Your task to perform on an android device: Open accessibility settings Image 0: 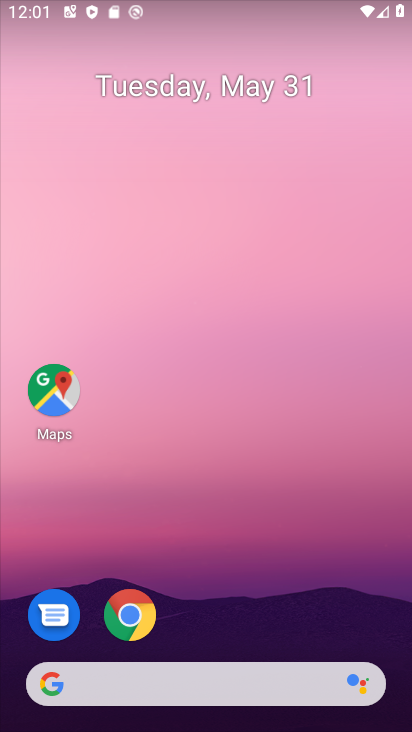
Step 0: drag from (360, 625) to (363, 165)
Your task to perform on an android device: Open accessibility settings Image 1: 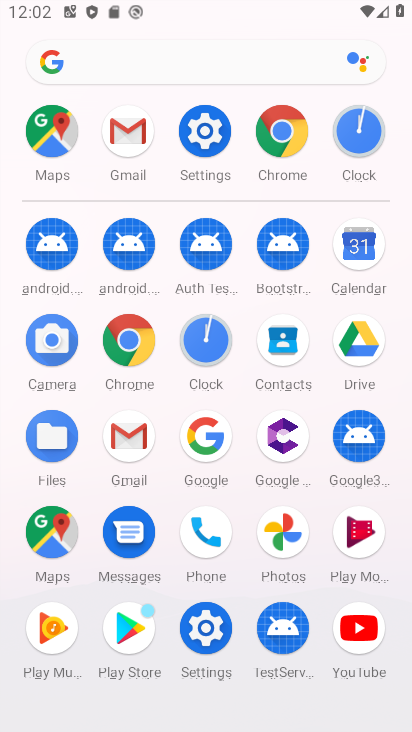
Step 1: click (207, 634)
Your task to perform on an android device: Open accessibility settings Image 2: 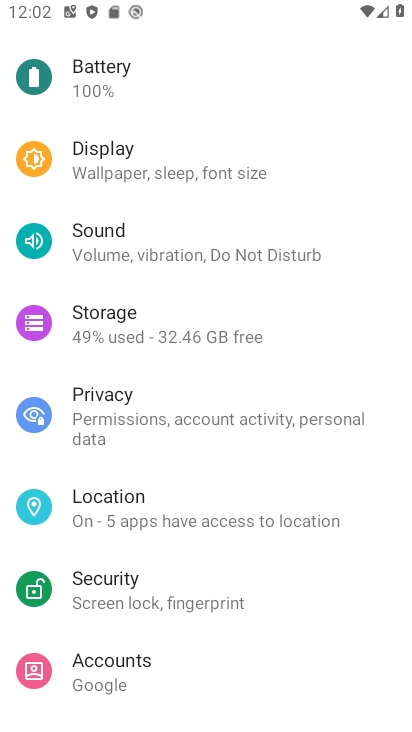
Step 2: drag from (370, 261) to (364, 391)
Your task to perform on an android device: Open accessibility settings Image 3: 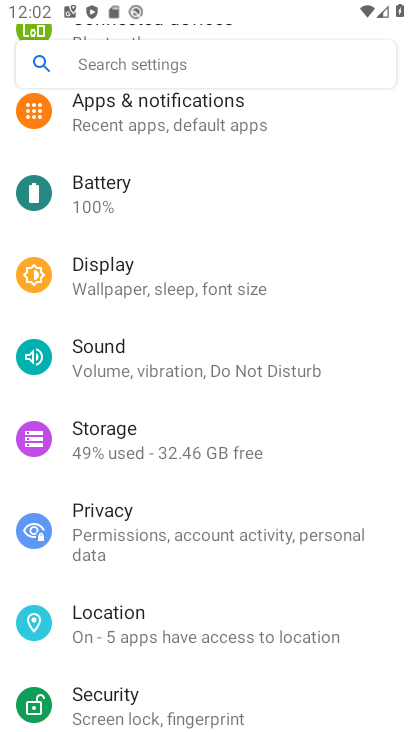
Step 3: drag from (363, 237) to (365, 338)
Your task to perform on an android device: Open accessibility settings Image 4: 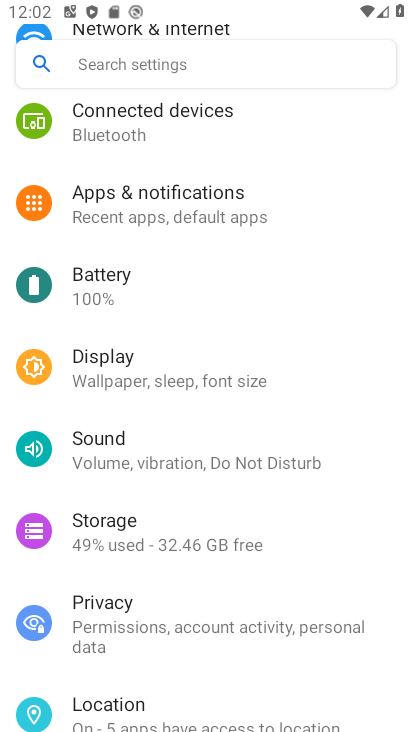
Step 4: drag from (350, 178) to (357, 289)
Your task to perform on an android device: Open accessibility settings Image 5: 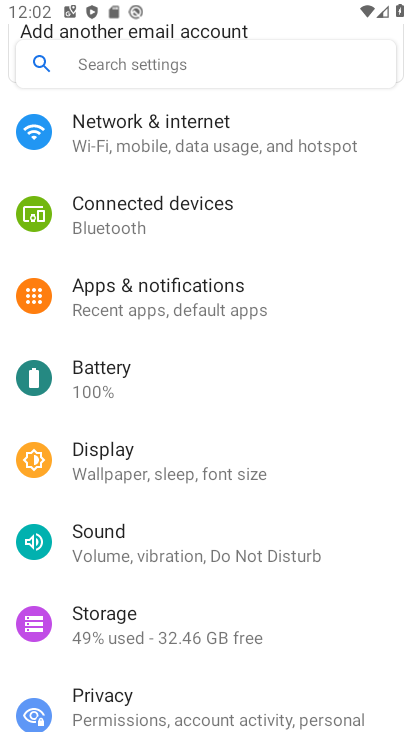
Step 5: drag from (357, 227) to (357, 345)
Your task to perform on an android device: Open accessibility settings Image 6: 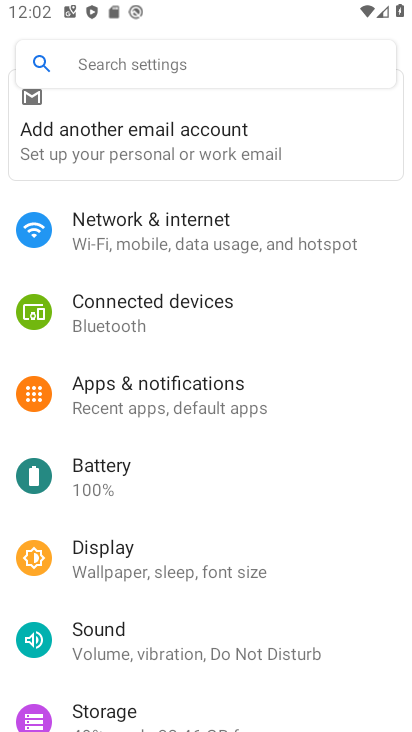
Step 6: drag from (359, 370) to (362, 324)
Your task to perform on an android device: Open accessibility settings Image 7: 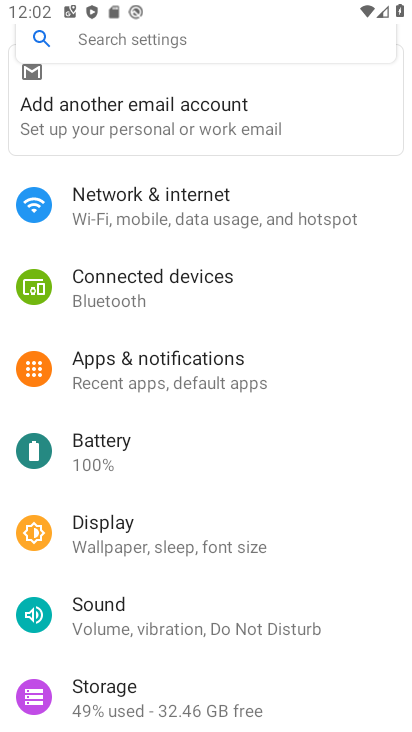
Step 7: drag from (356, 444) to (361, 367)
Your task to perform on an android device: Open accessibility settings Image 8: 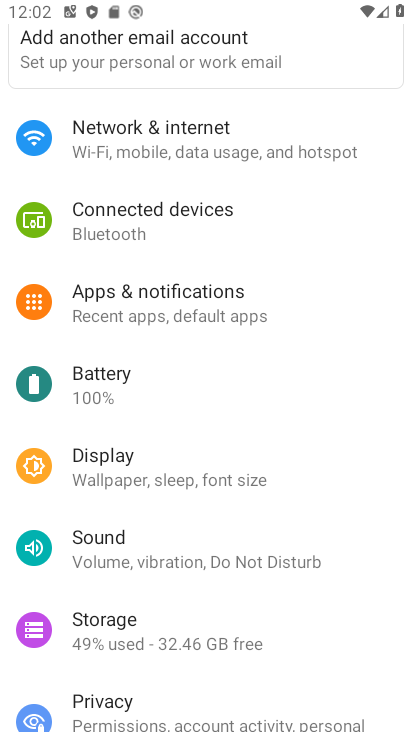
Step 8: drag from (373, 475) to (363, 394)
Your task to perform on an android device: Open accessibility settings Image 9: 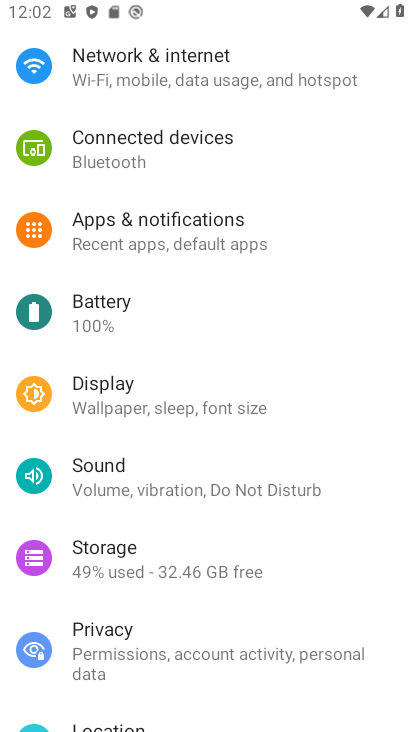
Step 9: drag from (356, 506) to (361, 414)
Your task to perform on an android device: Open accessibility settings Image 10: 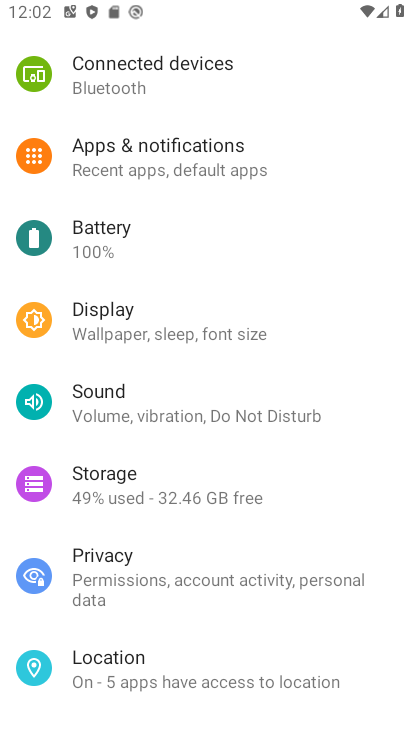
Step 10: drag from (360, 531) to (355, 431)
Your task to perform on an android device: Open accessibility settings Image 11: 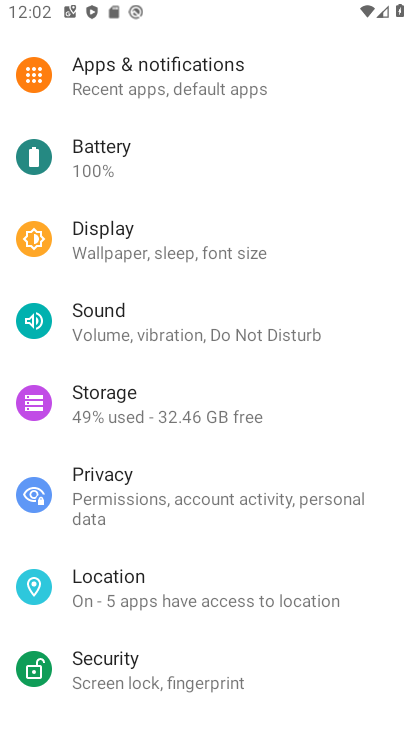
Step 11: drag from (349, 557) to (349, 457)
Your task to perform on an android device: Open accessibility settings Image 12: 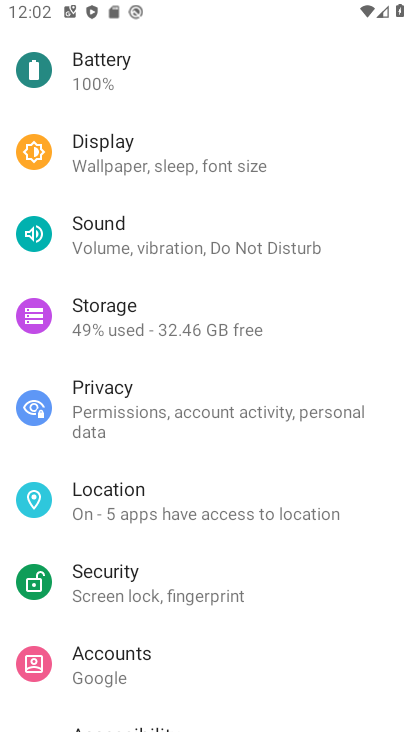
Step 12: drag from (349, 585) to (351, 491)
Your task to perform on an android device: Open accessibility settings Image 13: 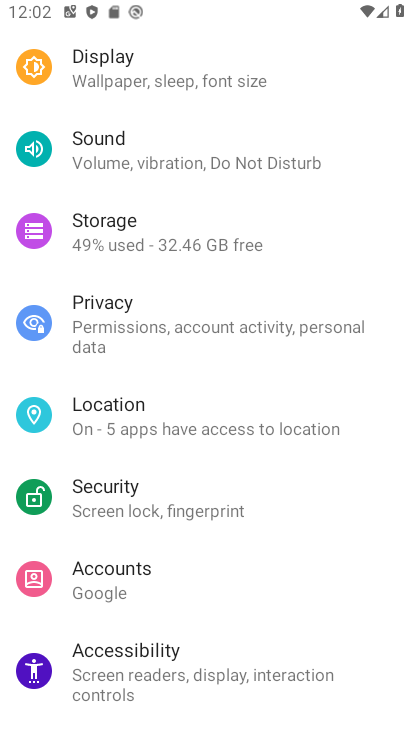
Step 13: drag from (342, 580) to (342, 483)
Your task to perform on an android device: Open accessibility settings Image 14: 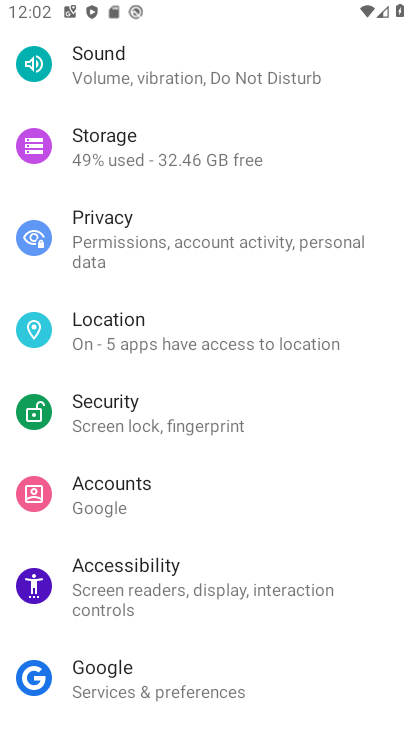
Step 14: click (328, 587)
Your task to perform on an android device: Open accessibility settings Image 15: 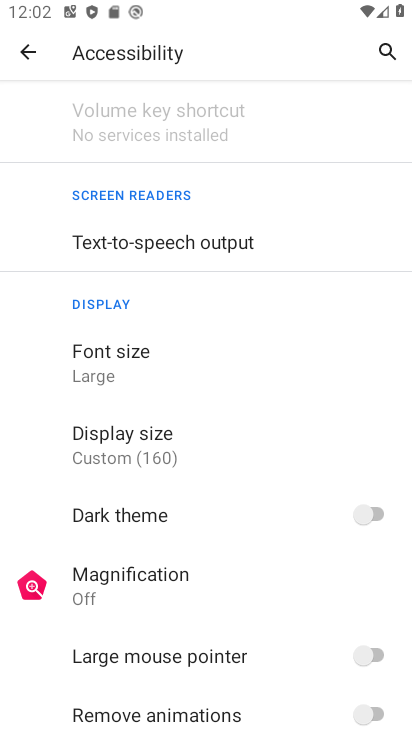
Step 15: task complete